Your task to perform on an android device: turn on showing notifications on the lock screen Image 0: 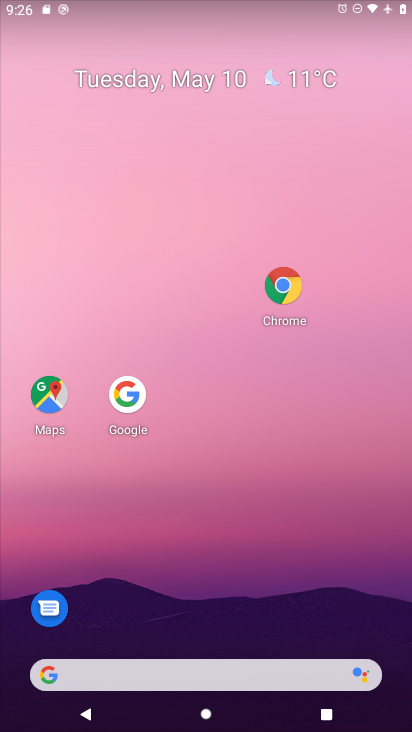
Step 0: drag from (173, 676) to (305, 154)
Your task to perform on an android device: turn on showing notifications on the lock screen Image 1: 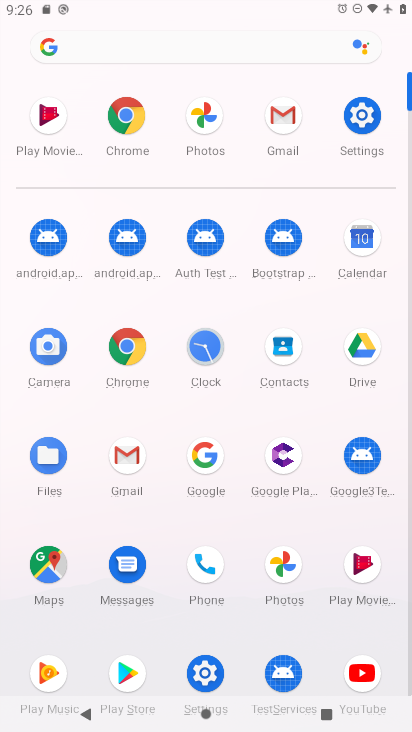
Step 1: click (358, 116)
Your task to perform on an android device: turn on showing notifications on the lock screen Image 2: 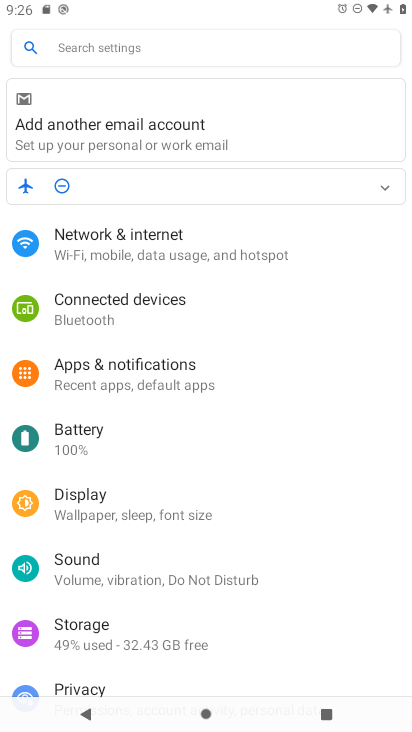
Step 2: click (138, 369)
Your task to perform on an android device: turn on showing notifications on the lock screen Image 3: 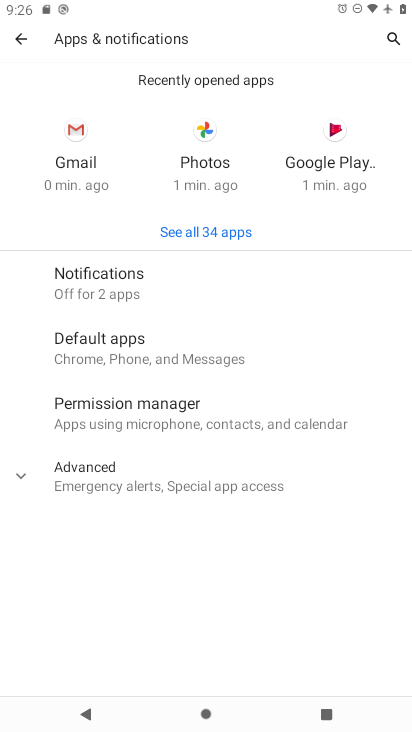
Step 3: click (114, 298)
Your task to perform on an android device: turn on showing notifications on the lock screen Image 4: 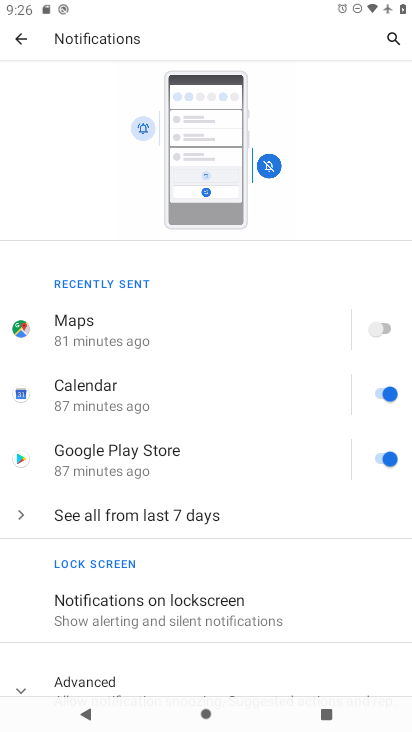
Step 4: click (119, 608)
Your task to perform on an android device: turn on showing notifications on the lock screen Image 5: 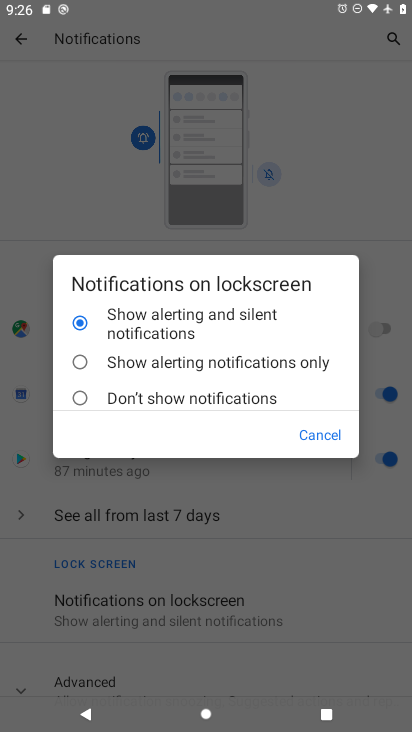
Step 5: task complete